Your task to perform on an android device: open sync settings in chrome Image 0: 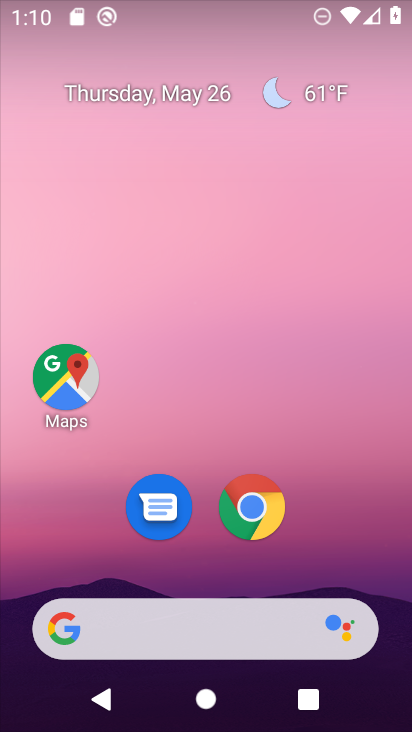
Step 0: click (269, 511)
Your task to perform on an android device: open sync settings in chrome Image 1: 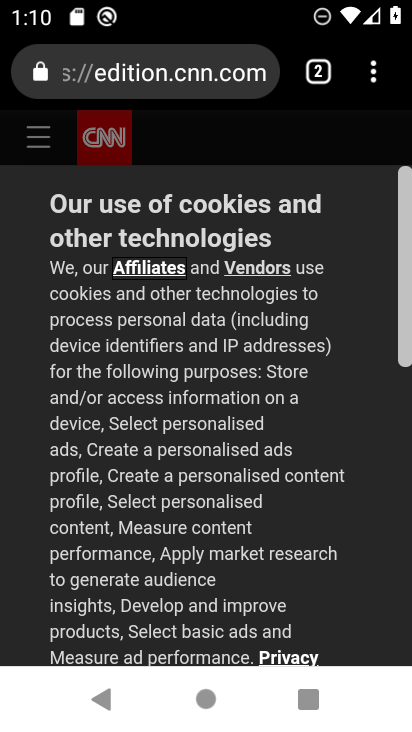
Step 1: click (366, 55)
Your task to perform on an android device: open sync settings in chrome Image 2: 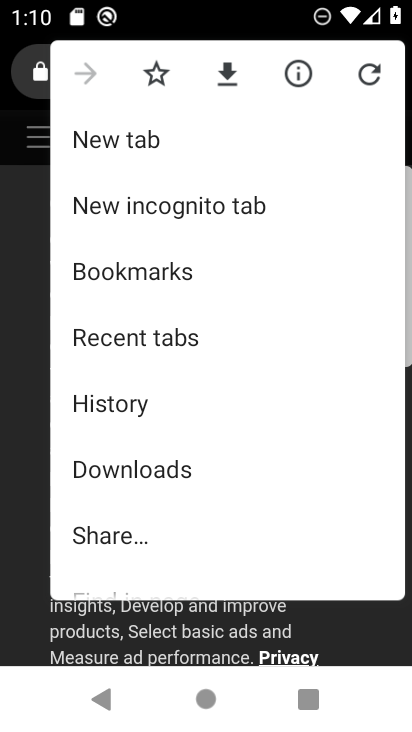
Step 2: drag from (249, 449) to (120, 106)
Your task to perform on an android device: open sync settings in chrome Image 3: 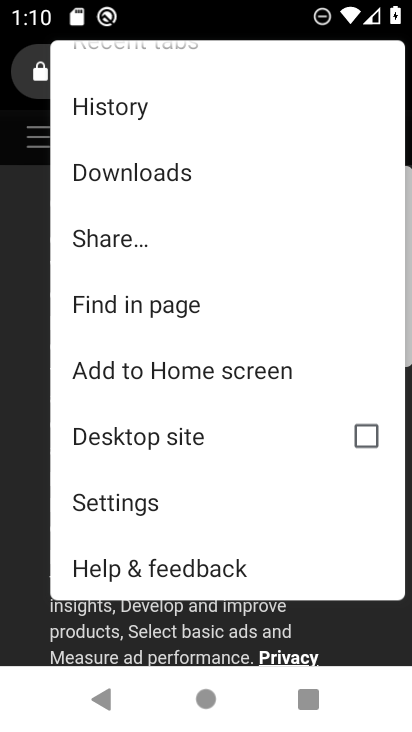
Step 3: click (151, 492)
Your task to perform on an android device: open sync settings in chrome Image 4: 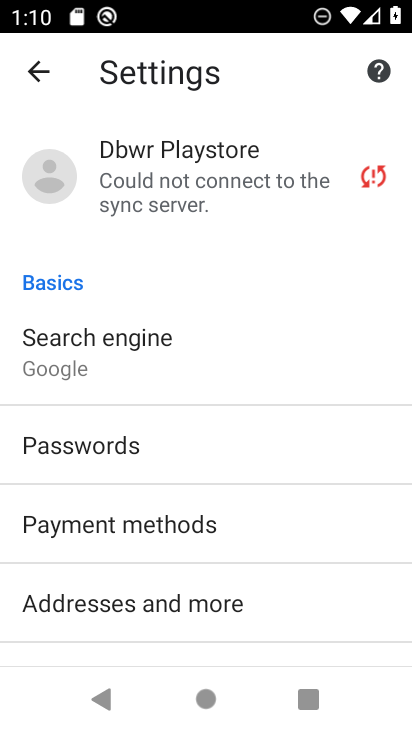
Step 4: click (165, 214)
Your task to perform on an android device: open sync settings in chrome Image 5: 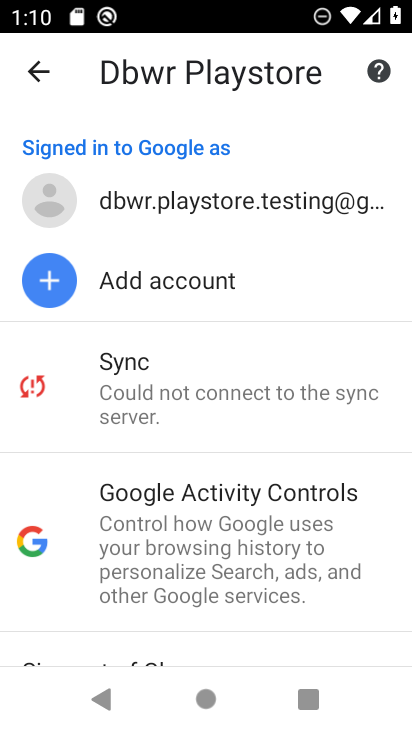
Step 5: click (193, 371)
Your task to perform on an android device: open sync settings in chrome Image 6: 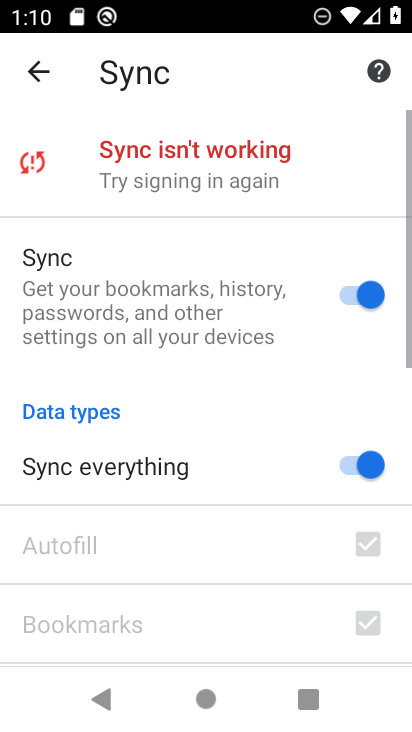
Step 6: task complete